Your task to perform on an android device: Search for "razer blackwidow" on ebay, select the first entry, add it to the cart, then select checkout. Image 0: 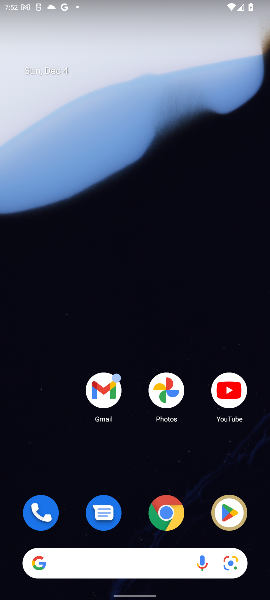
Step 0: click (160, 508)
Your task to perform on an android device: Search for "razer blackwidow" on ebay, select the first entry, add it to the cart, then select checkout. Image 1: 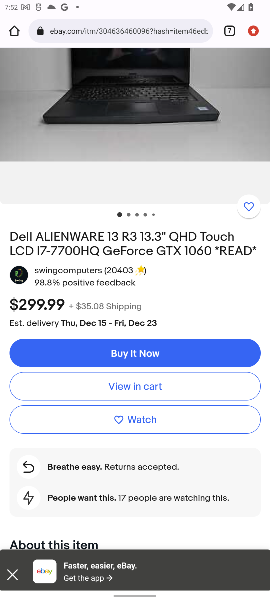
Step 1: drag from (214, 86) to (199, 323)
Your task to perform on an android device: Search for "razer blackwidow" on ebay, select the first entry, add it to the cart, then select checkout. Image 2: 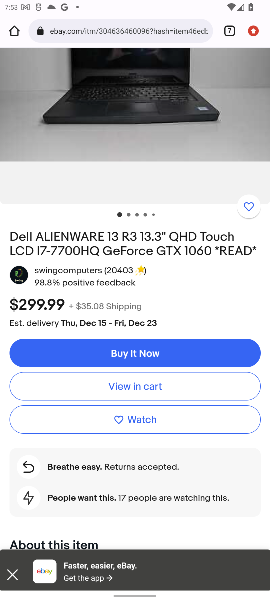
Step 2: drag from (172, 115) to (229, 553)
Your task to perform on an android device: Search for "razer blackwidow" on ebay, select the first entry, add it to the cart, then select checkout. Image 3: 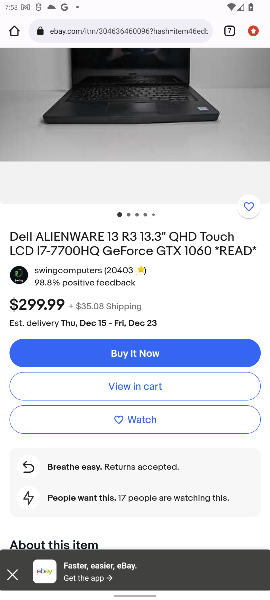
Step 3: drag from (177, 145) to (200, 527)
Your task to perform on an android device: Search for "razer blackwidow" on ebay, select the first entry, add it to the cart, then select checkout. Image 4: 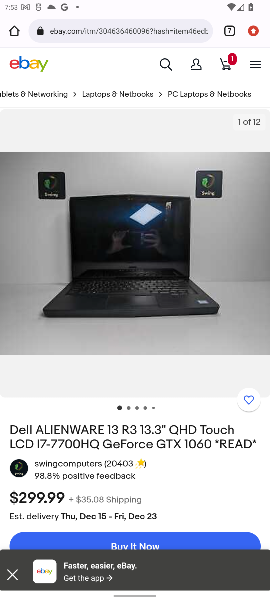
Step 4: click (163, 65)
Your task to perform on an android device: Search for "razer blackwidow" on ebay, select the first entry, add it to the cart, then select checkout. Image 5: 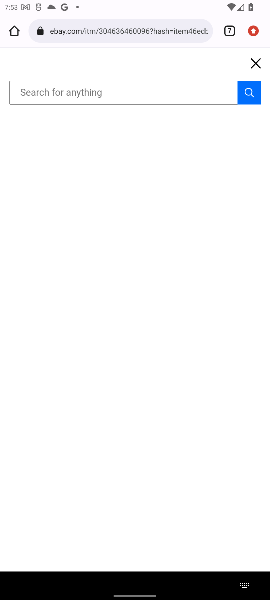
Step 5: type "razer blackwidow"
Your task to perform on an android device: Search for "razer blackwidow" on ebay, select the first entry, add it to the cart, then select checkout. Image 6: 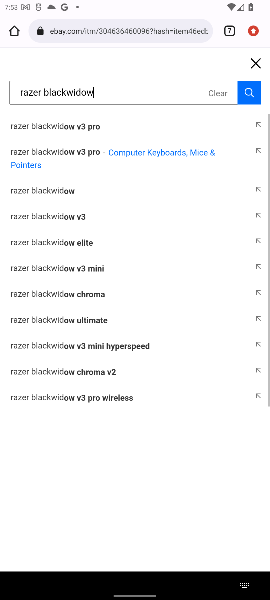
Step 6: click (58, 151)
Your task to perform on an android device: Search for "razer blackwidow" on ebay, select the first entry, add it to the cart, then select checkout. Image 7: 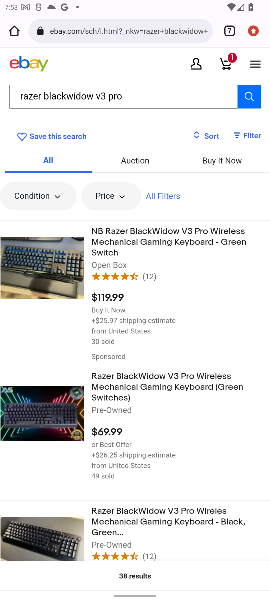
Step 7: click (154, 382)
Your task to perform on an android device: Search for "razer blackwidow" on ebay, select the first entry, add it to the cart, then select checkout. Image 8: 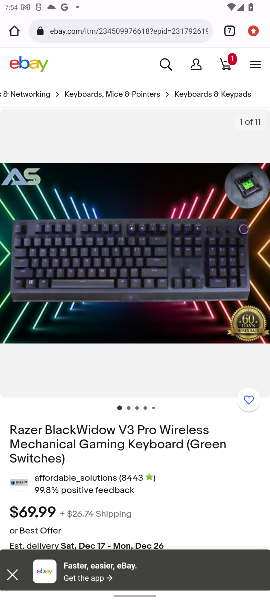
Step 8: drag from (167, 463) to (215, 264)
Your task to perform on an android device: Search for "razer blackwidow" on ebay, select the first entry, add it to the cart, then select checkout. Image 9: 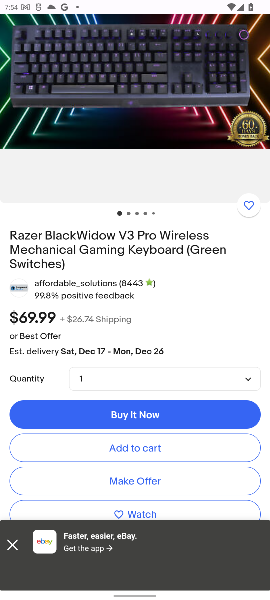
Step 9: click (152, 446)
Your task to perform on an android device: Search for "razer blackwidow" on ebay, select the first entry, add it to the cart, then select checkout. Image 10: 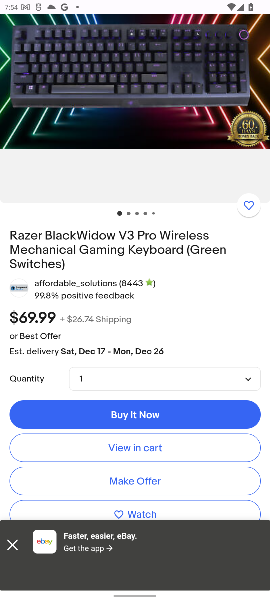
Step 10: click (153, 443)
Your task to perform on an android device: Search for "razer blackwidow" on ebay, select the first entry, add it to the cart, then select checkout. Image 11: 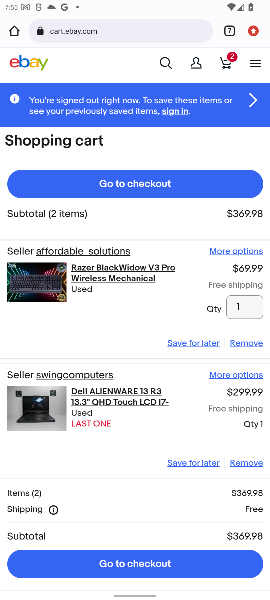
Step 11: click (135, 555)
Your task to perform on an android device: Search for "razer blackwidow" on ebay, select the first entry, add it to the cart, then select checkout. Image 12: 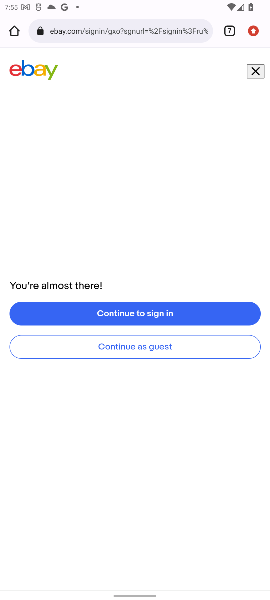
Step 12: task complete